Your task to perform on an android device: Open calendar and show me the fourth week of next month Image 0: 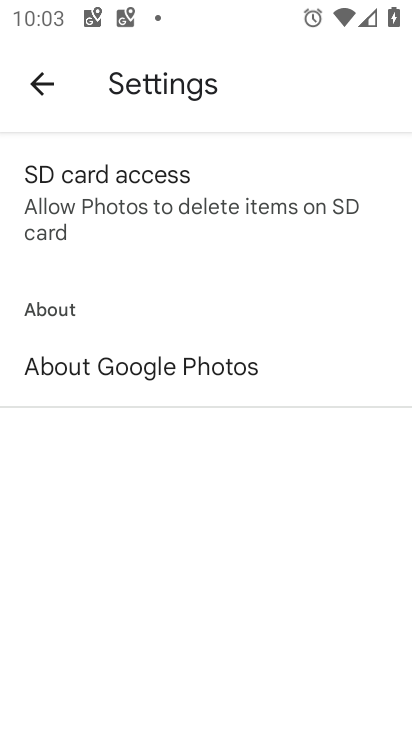
Step 0: press home button
Your task to perform on an android device: Open calendar and show me the fourth week of next month Image 1: 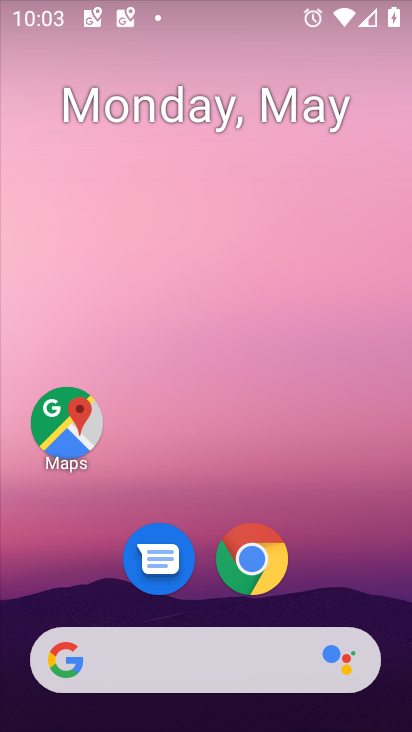
Step 1: drag from (376, 549) to (247, 17)
Your task to perform on an android device: Open calendar and show me the fourth week of next month Image 2: 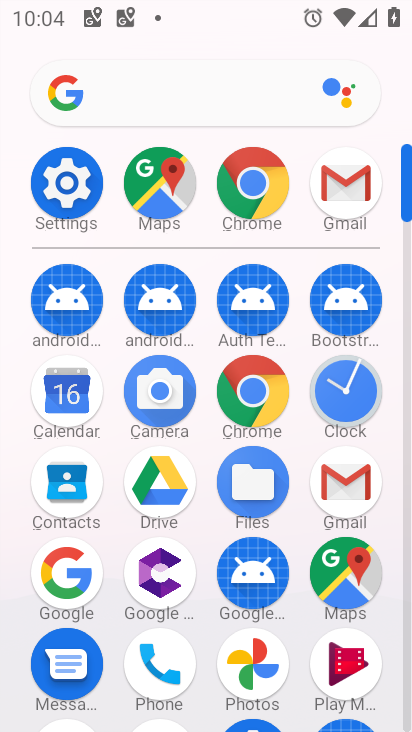
Step 2: click (48, 387)
Your task to perform on an android device: Open calendar and show me the fourth week of next month Image 3: 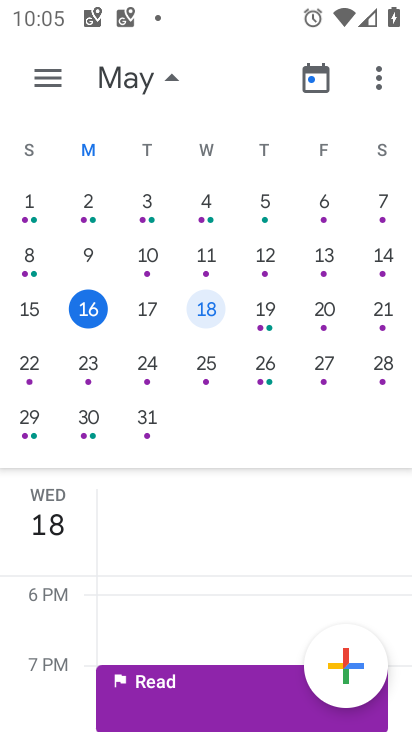
Step 3: drag from (358, 317) to (33, 260)
Your task to perform on an android device: Open calendar and show me the fourth week of next month Image 4: 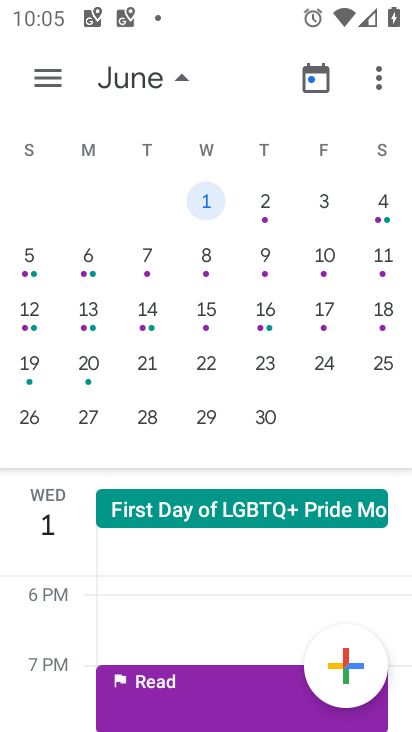
Step 4: click (143, 426)
Your task to perform on an android device: Open calendar and show me the fourth week of next month Image 5: 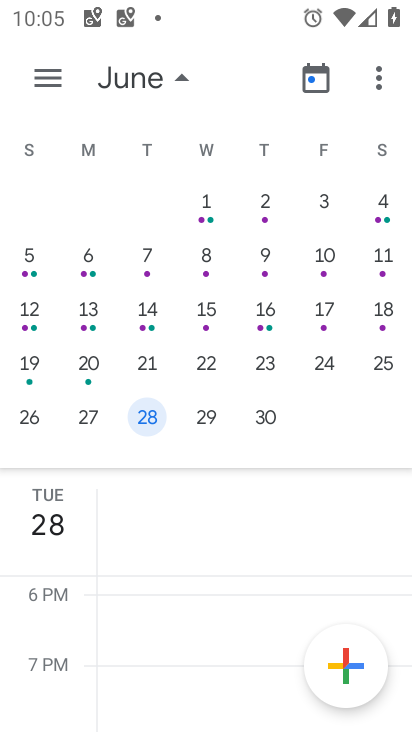
Step 5: task complete